Your task to perform on an android device: turn vacation reply on in the gmail app Image 0: 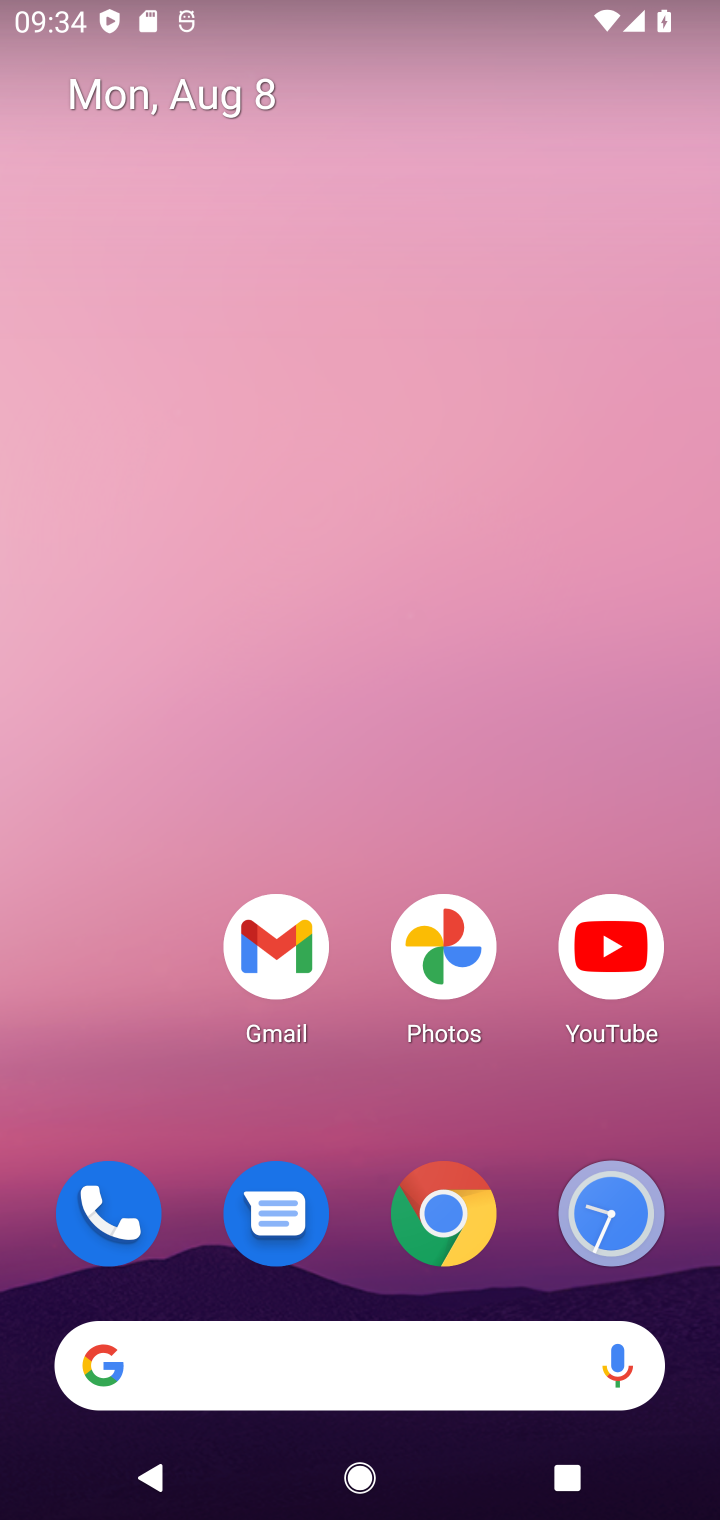
Step 0: drag from (401, 893) to (394, 323)
Your task to perform on an android device: turn vacation reply on in the gmail app Image 1: 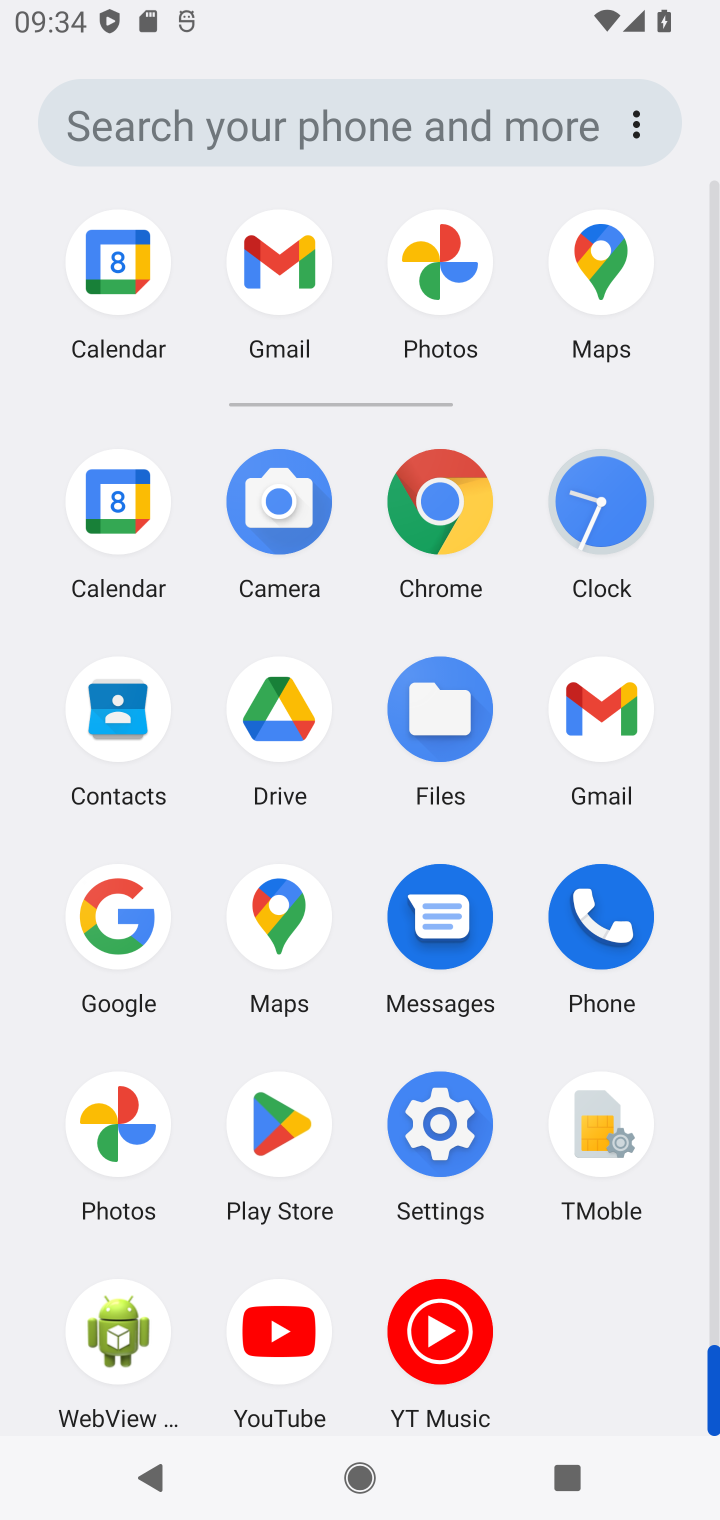
Step 1: click (598, 752)
Your task to perform on an android device: turn vacation reply on in the gmail app Image 2: 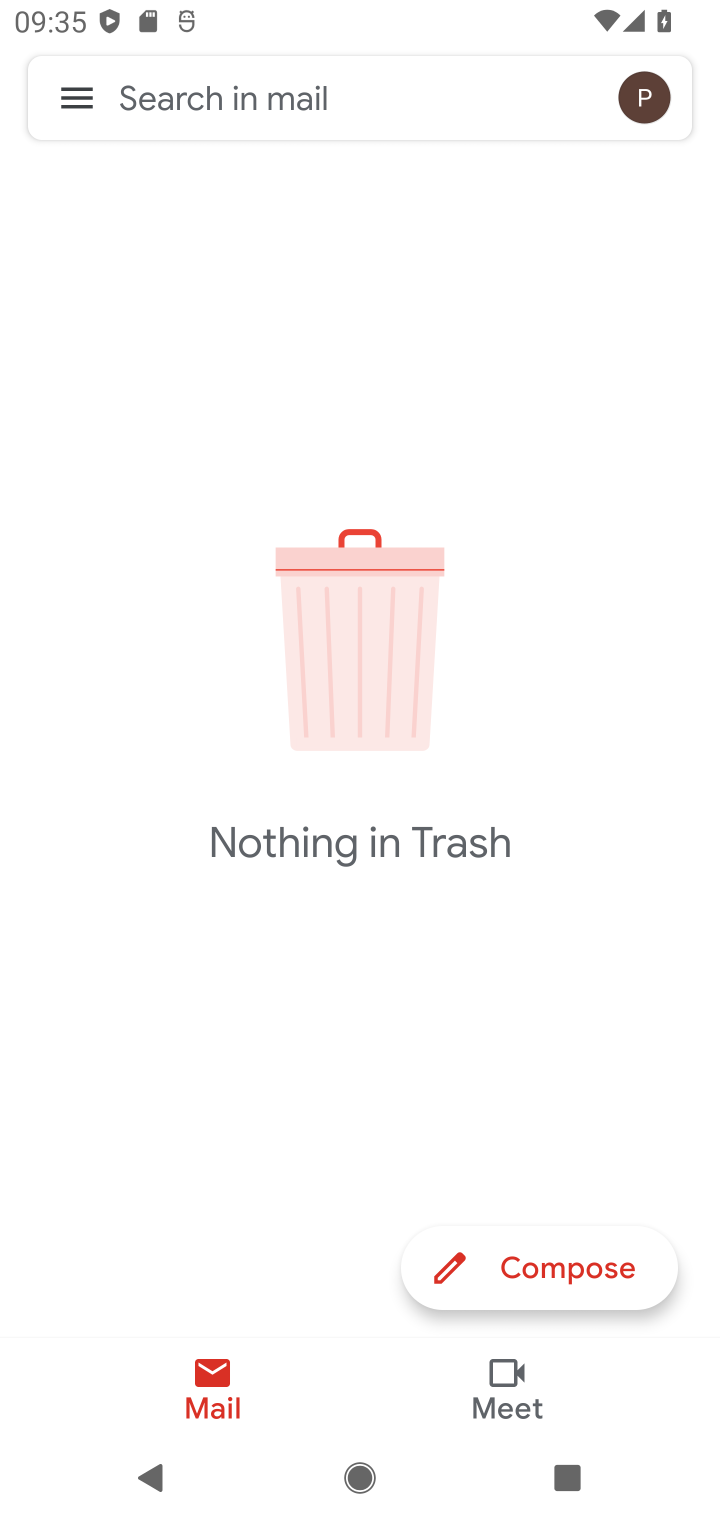
Step 2: click (87, 112)
Your task to perform on an android device: turn vacation reply on in the gmail app Image 3: 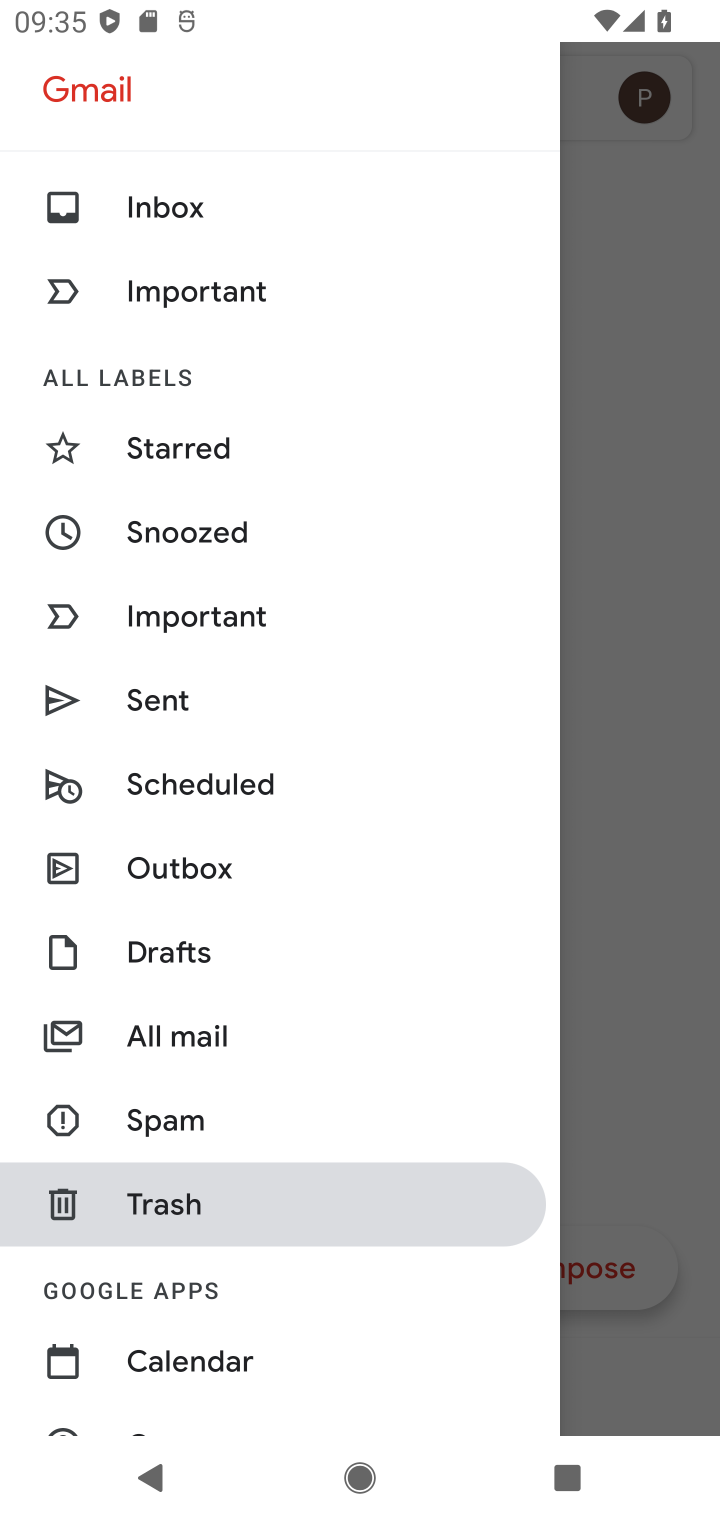
Step 3: drag from (230, 1167) to (185, 466)
Your task to perform on an android device: turn vacation reply on in the gmail app Image 4: 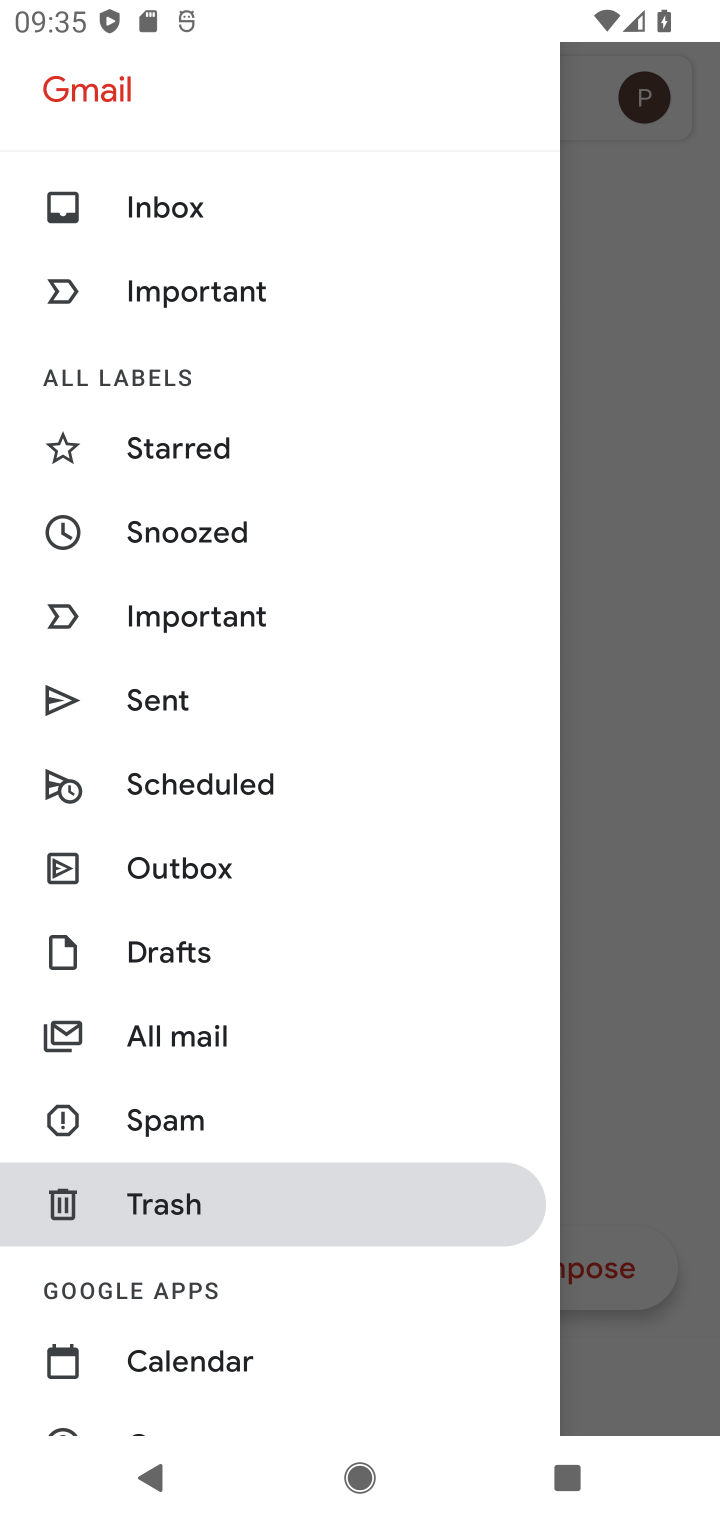
Step 4: drag from (182, 1300) to (184, 557)
Your task to perform on an android device: turn vacation reply on in the gmail app Image 5: 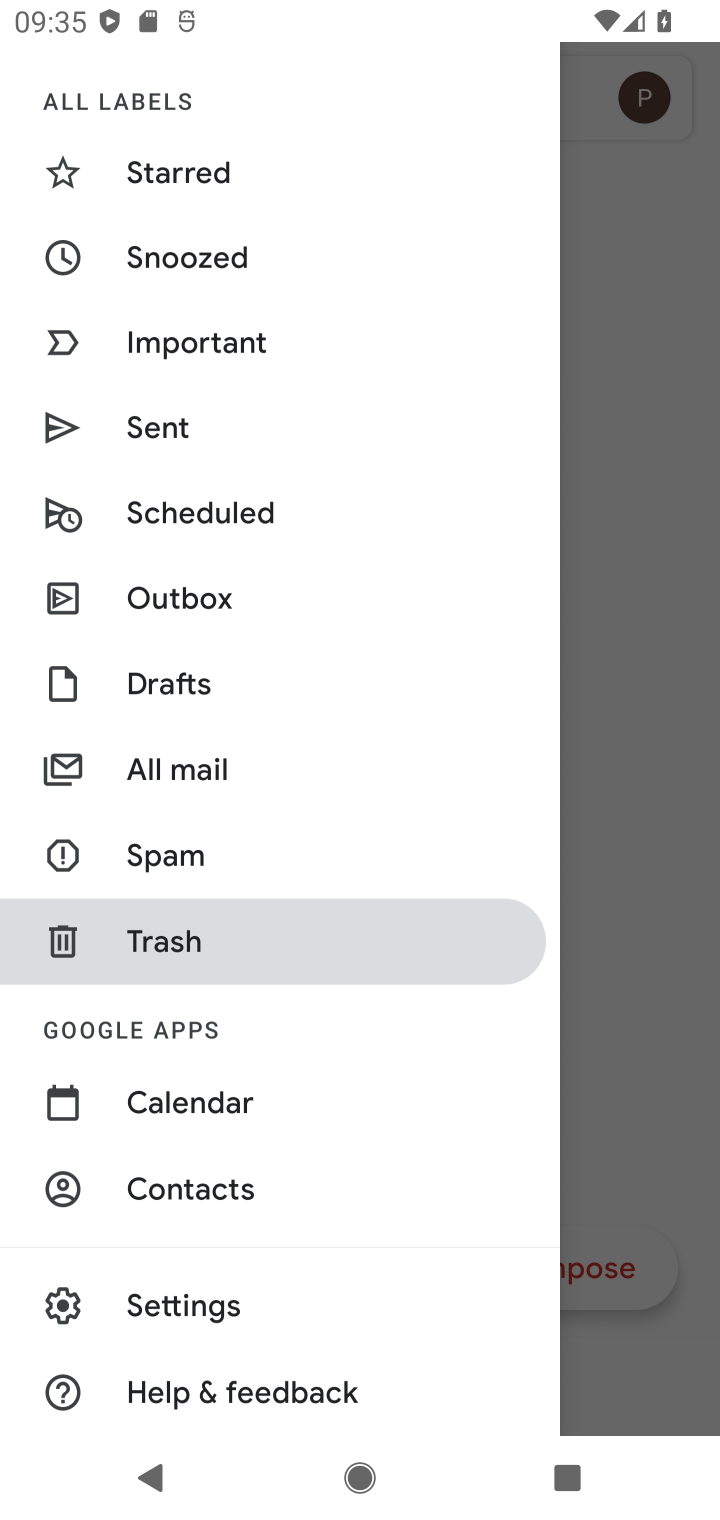
Step 5: click (183, 1313)
Your task to perform on an android device: turn vacation reply on in the gmail app Image 6: 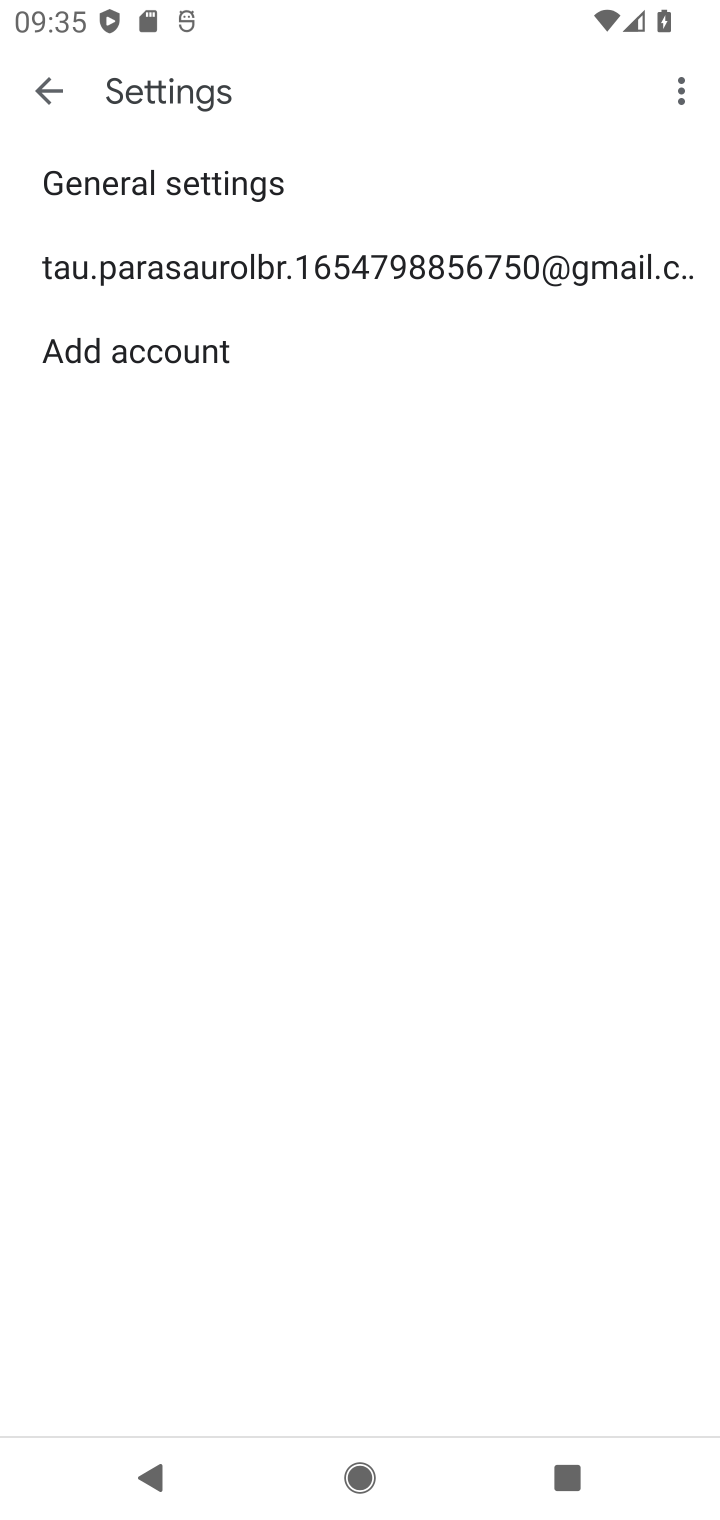
Step 6: click (437, 282)
Your task to perform on an android device: turn vacation reply on in the gmail app Image 7: 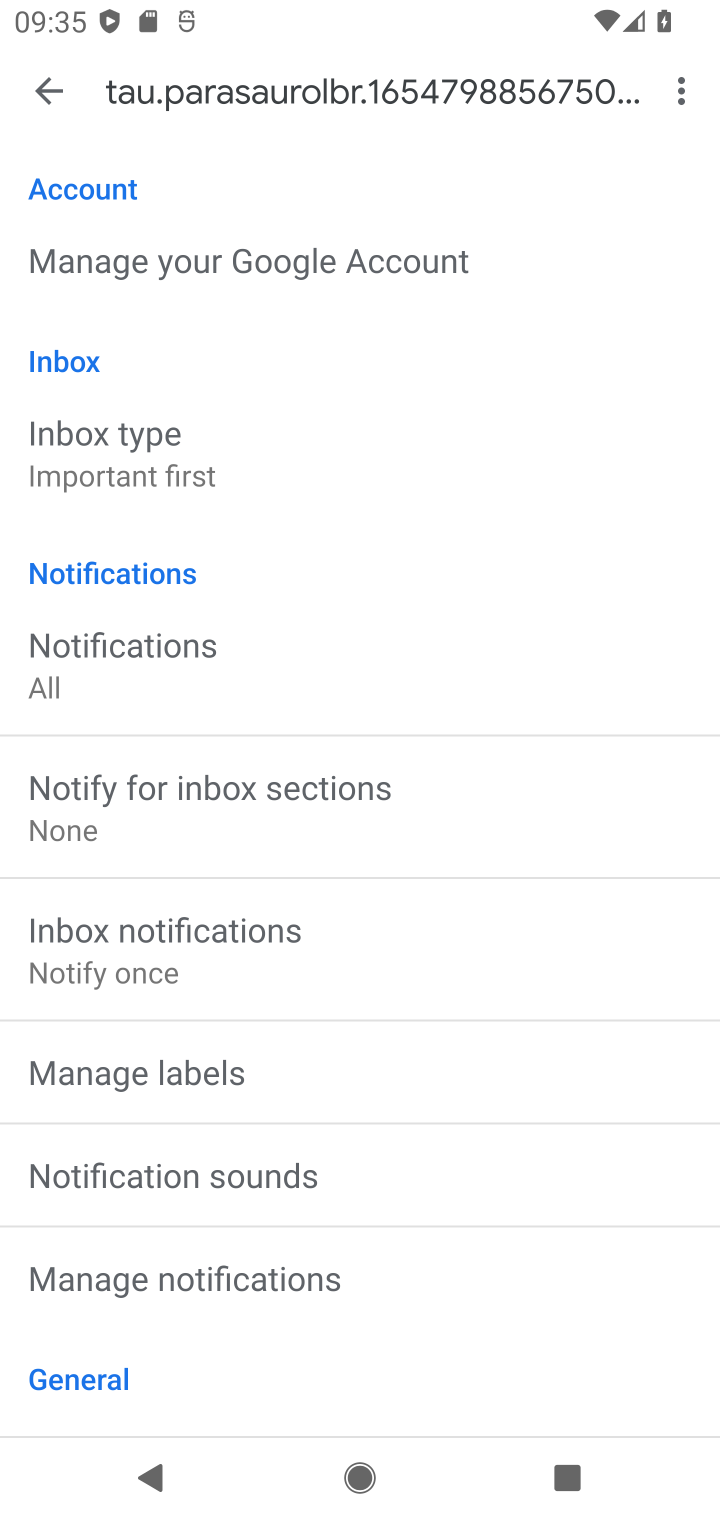
Step 7: drag from (303, 1104) to (247, 418)
Your task to perform on an android device: turn vacation reply on in the gmail app Image 8: 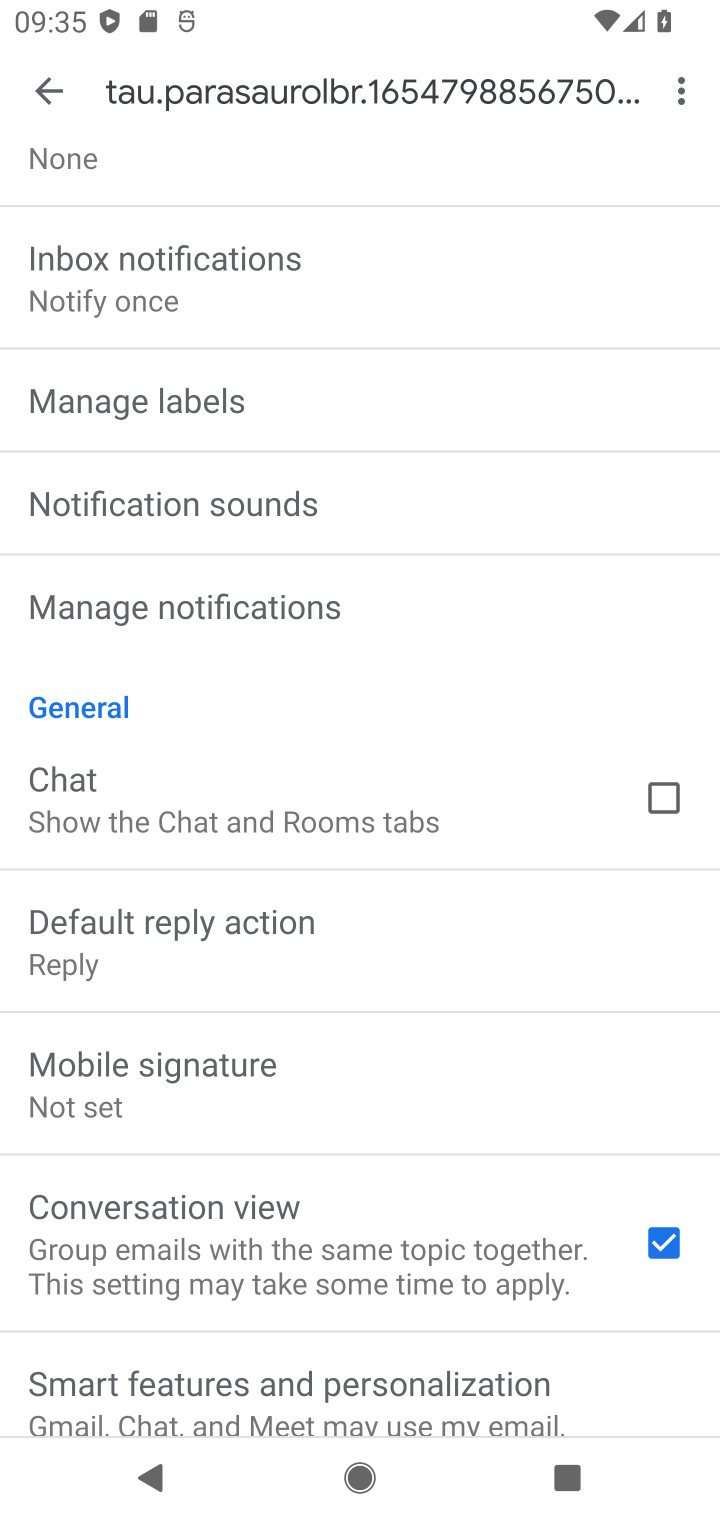
Step 8: drag from (327, 513) to (304, 279)
Your task to perform on an android device: turn vacation reply on in the gmail app Image 9: 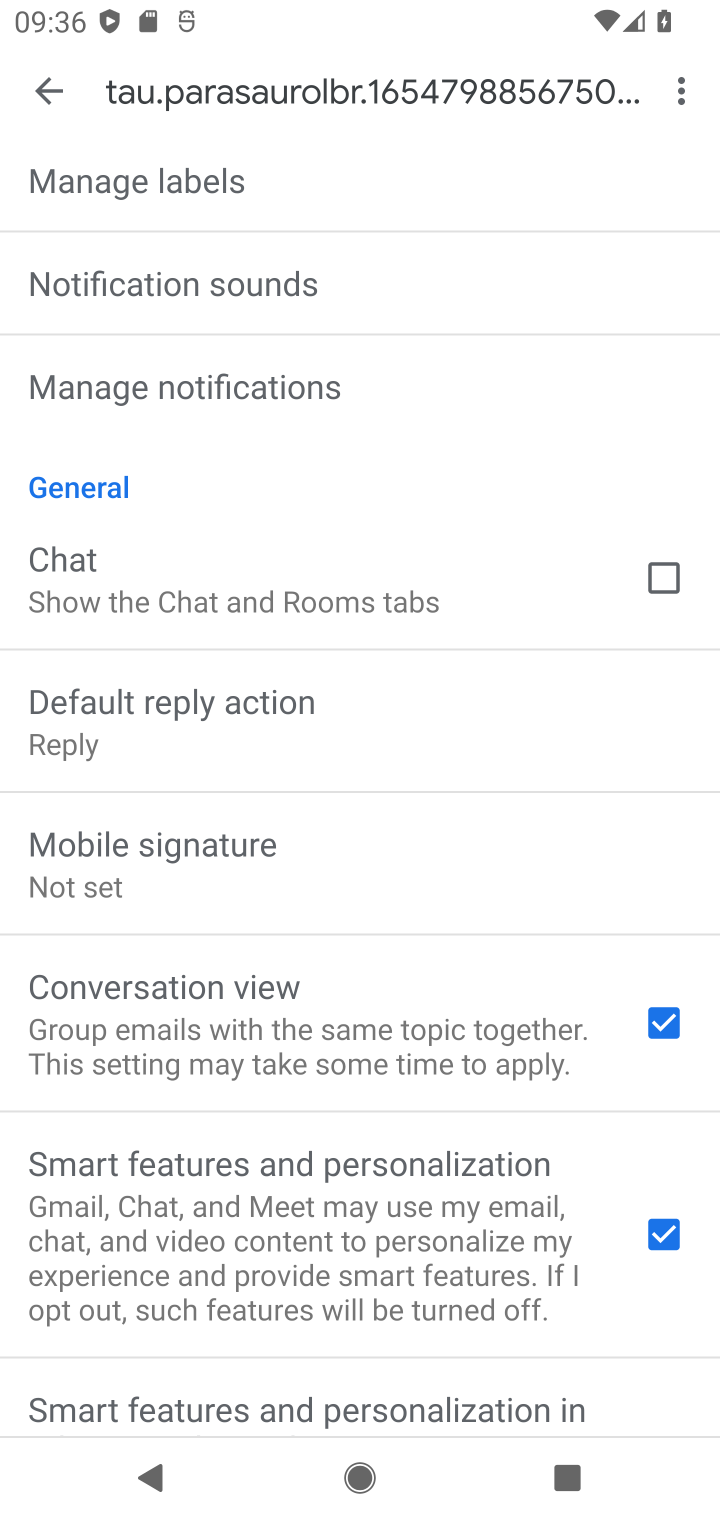
Step 9: drag from (319, 1294) to (292, 421)
Your task to perform on an android device: turn vacation reply on in the gmail app Image 10: 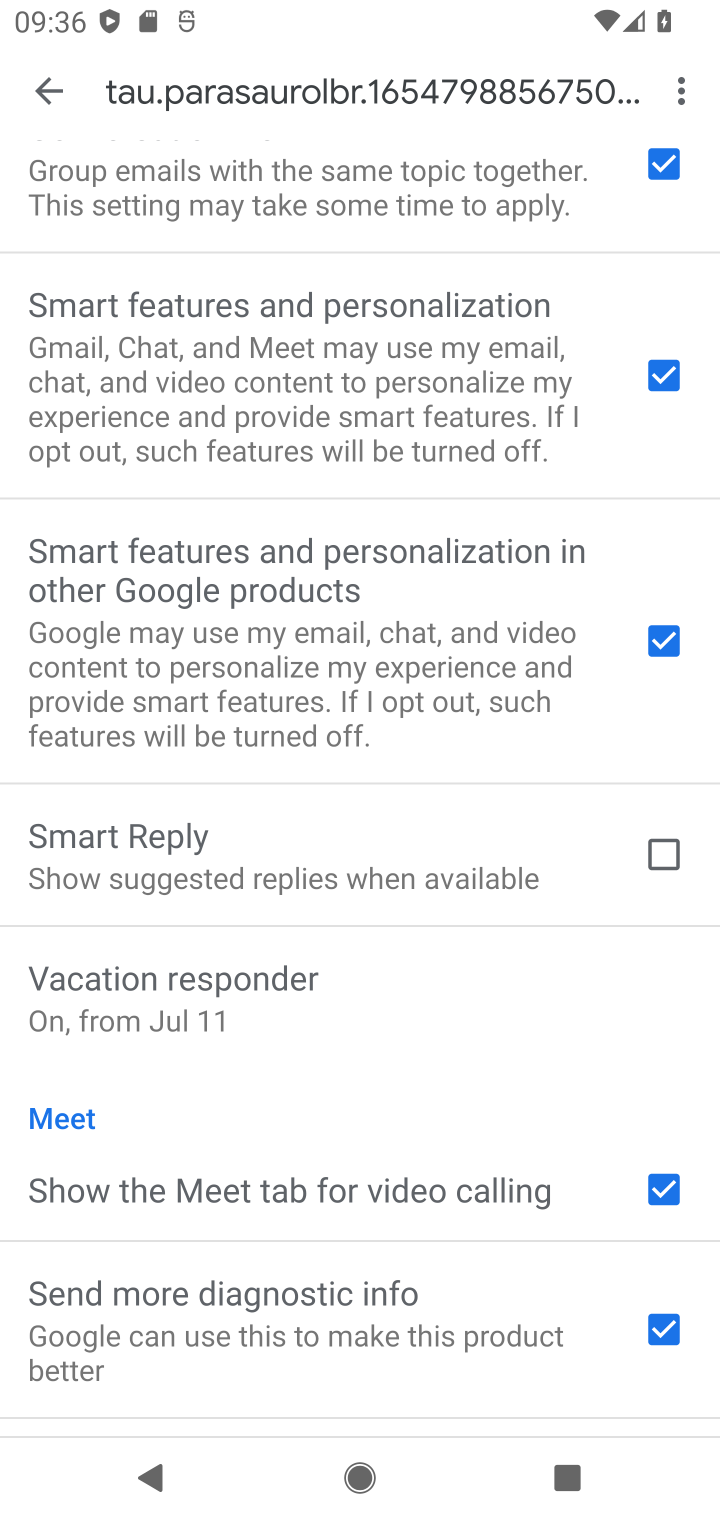
Step 10: click (400, 978)
Your task to perform on an android device: turn vacation reply on in the gmail app Image 11: 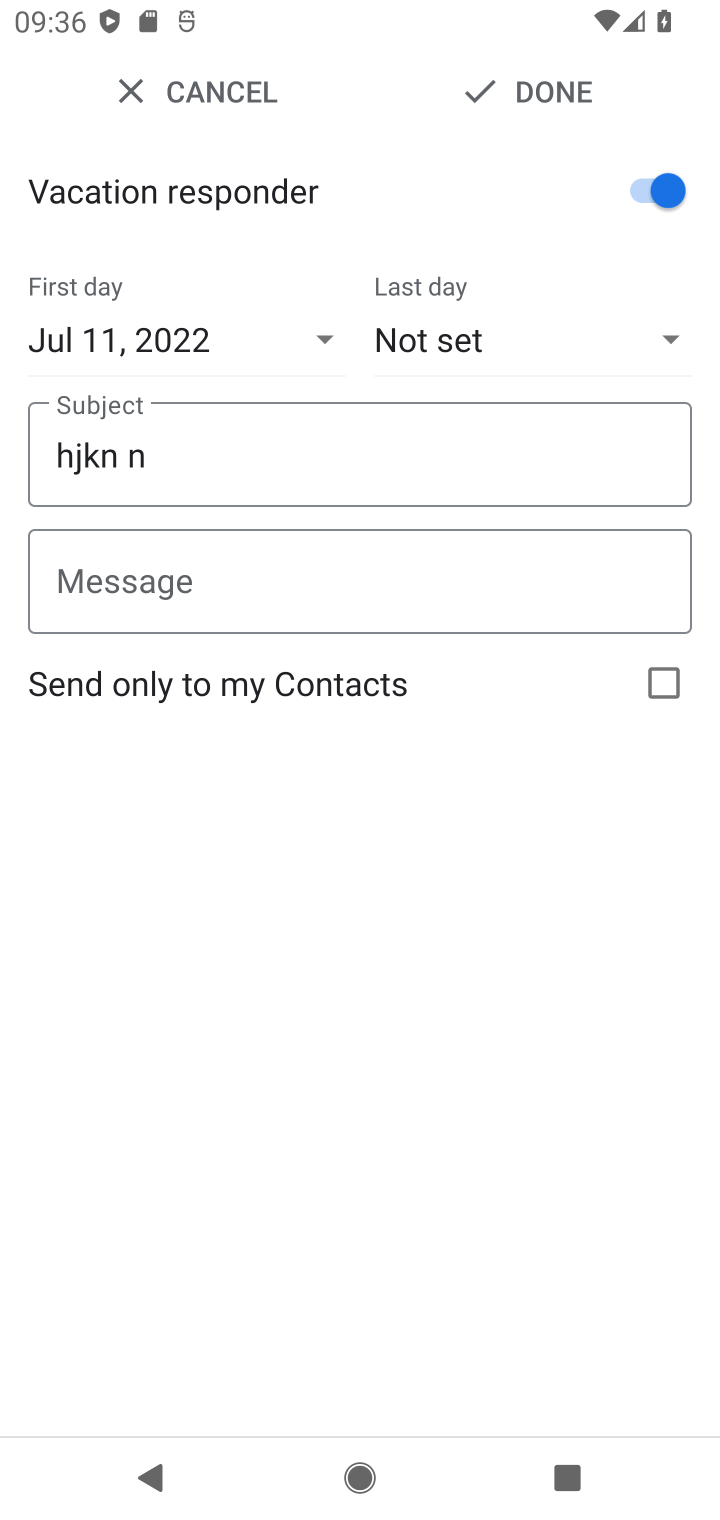
Step 11: click (557, 86)
Your task to perform on an android device: turn vacation reply on in the gmail app Image 12: 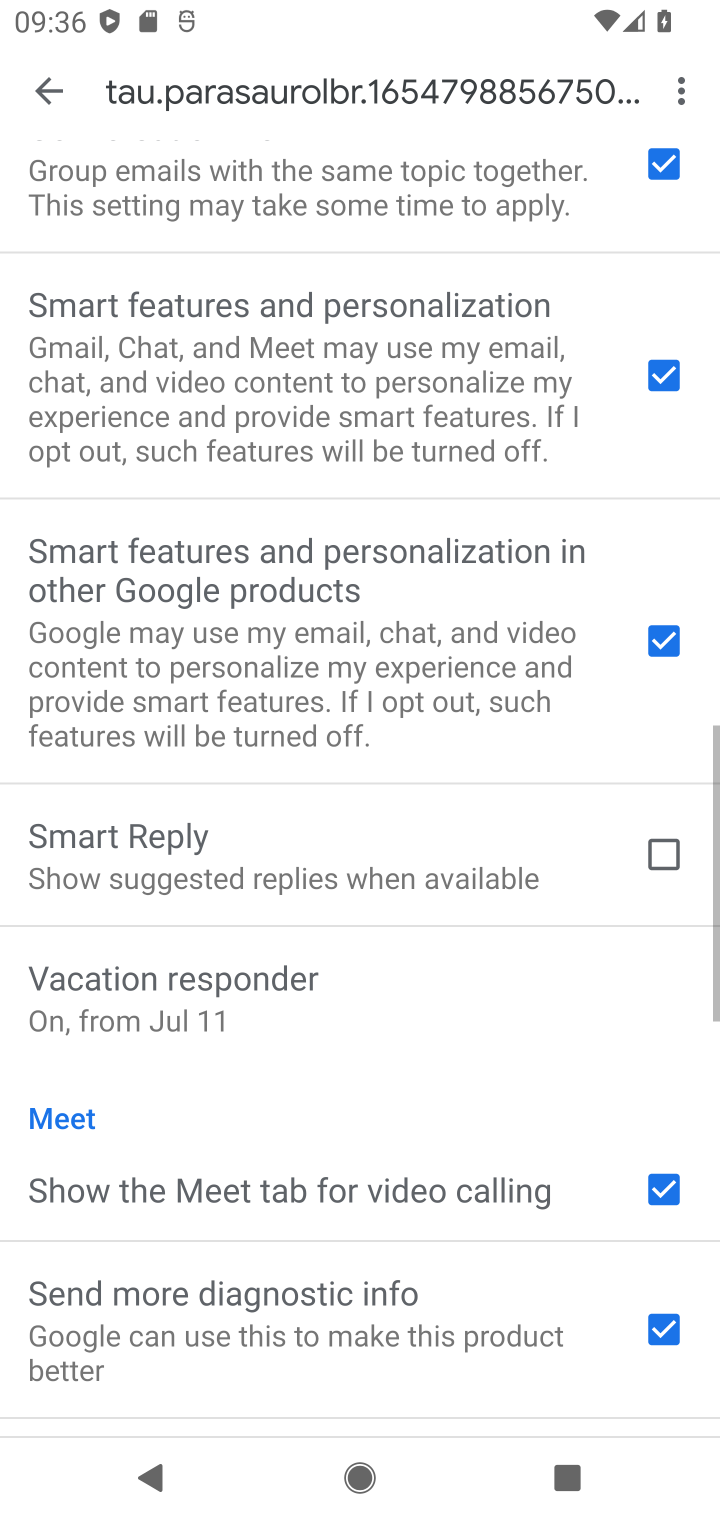
Step 12: task complete